Your task to perform on an android device: Clear the cart on bestbuy.com. Image 0: 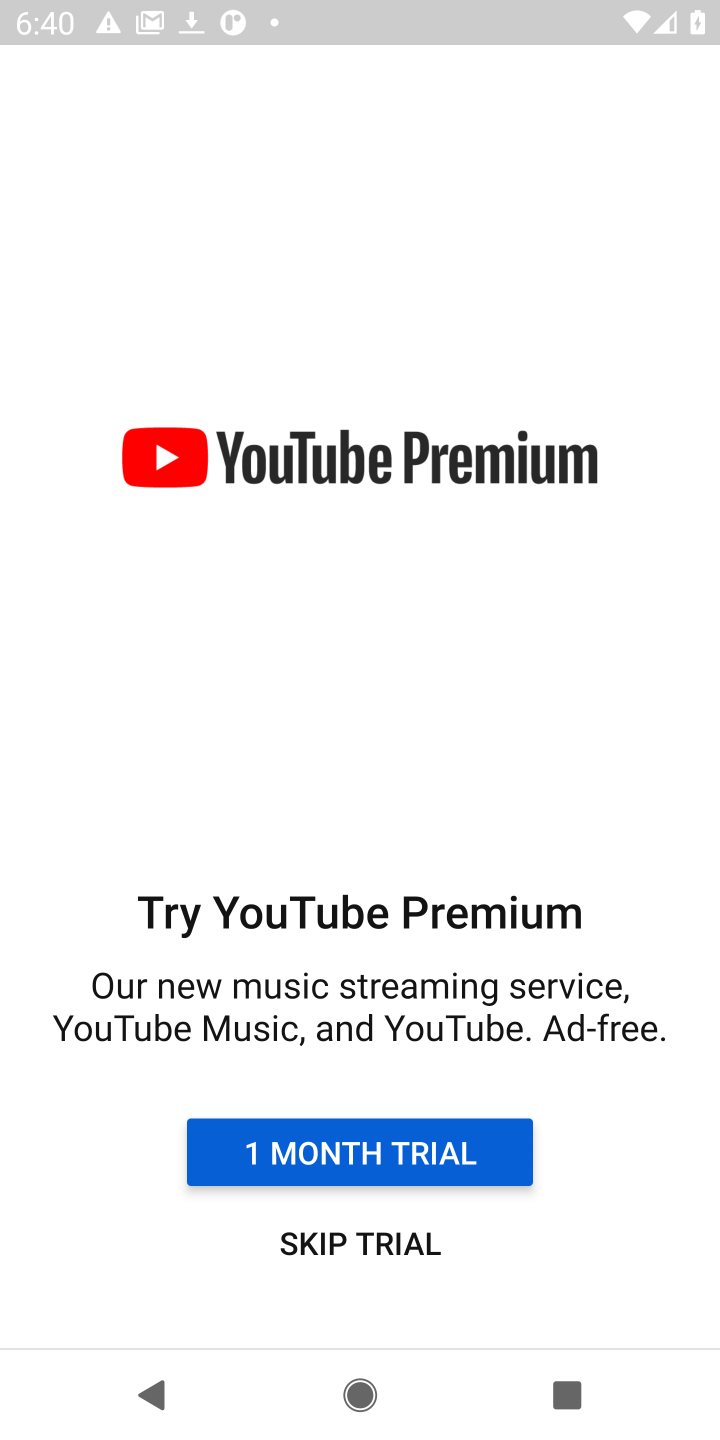
Step 0: press home button
Your task to perform on an android device: Clear the cart on bestbuy.com. Image 1: 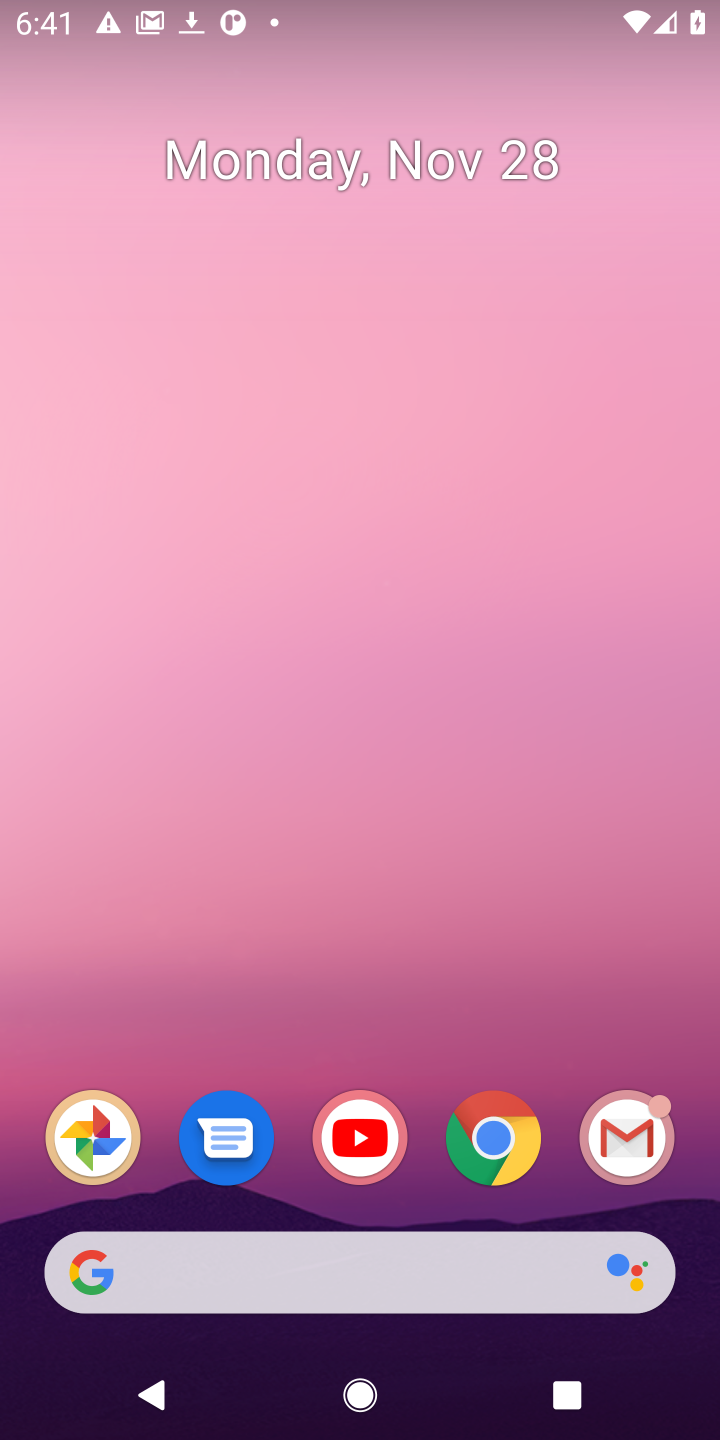
Step 1: click (487, 1160)
Your task to perform on an android device: Clear the cart on bestbuy.com. Image 2: 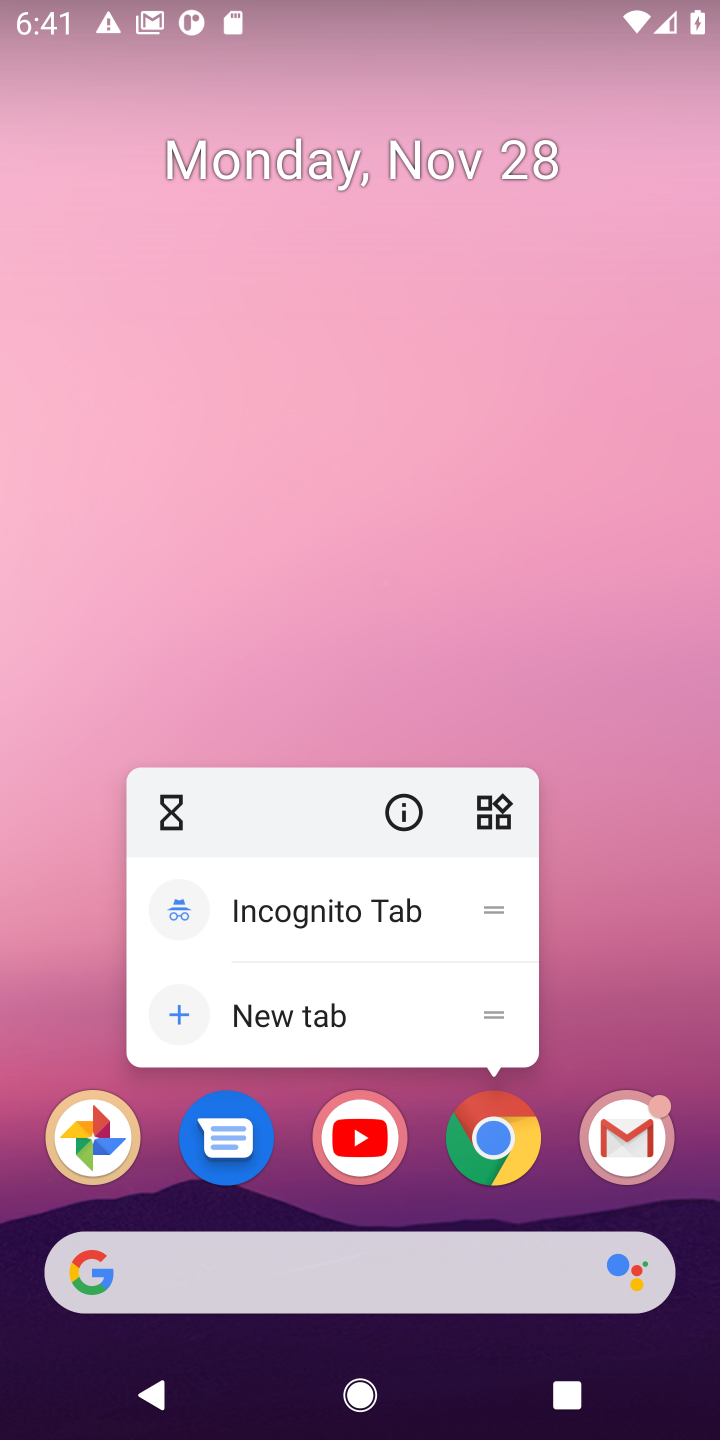
Step 2: click (487, 1160)
Your task to perform on an android device: Clear the cart on bestbuy.com. Image 3: 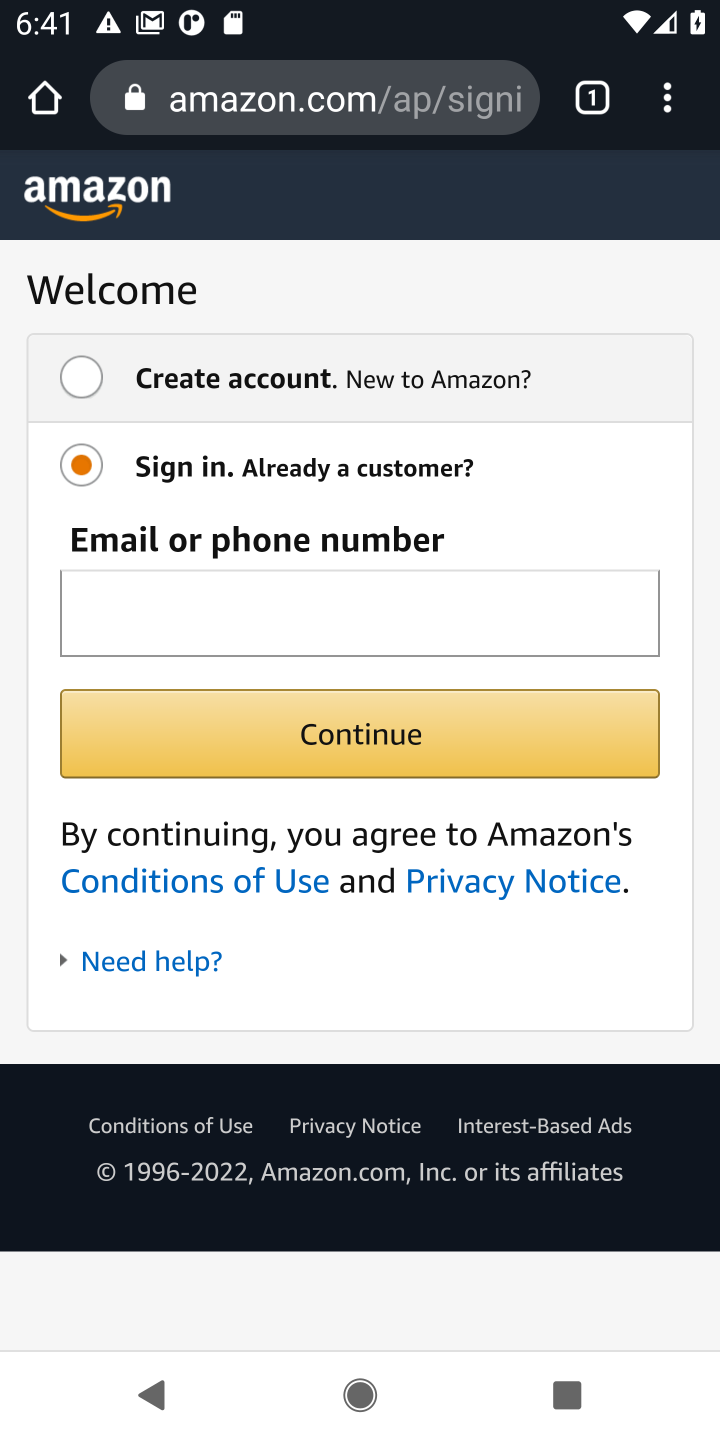
Step 3: click (323, 117)
Your task to perform on an android device: Clear the cart on bestbuy.com. Image 4: 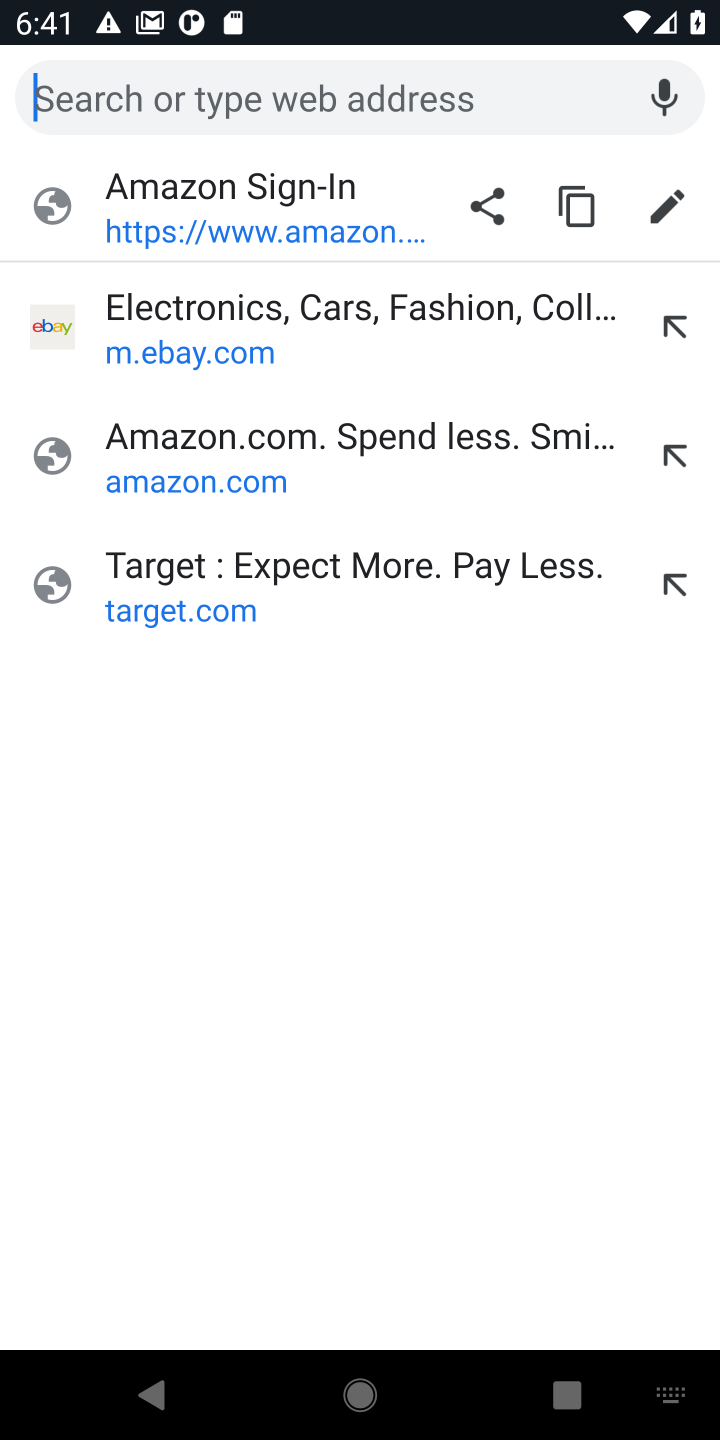
Step 4: type "bestbuy.com"
Your task to perform on an android device: Clear the cart on bestbuy.com. Image 5: 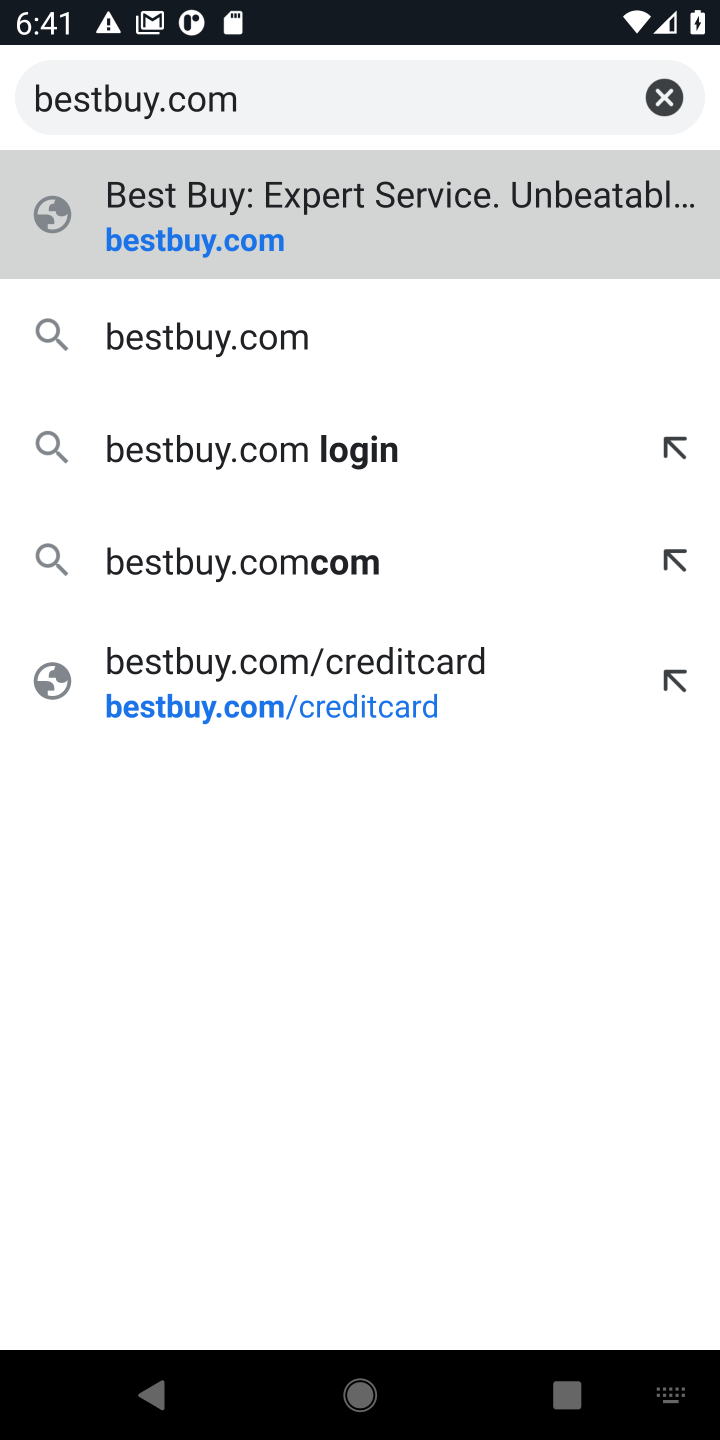
Step 5: click (204, 236)
Your task to perform on an android device: Clear the cart on bestbuy.com. Image 6: 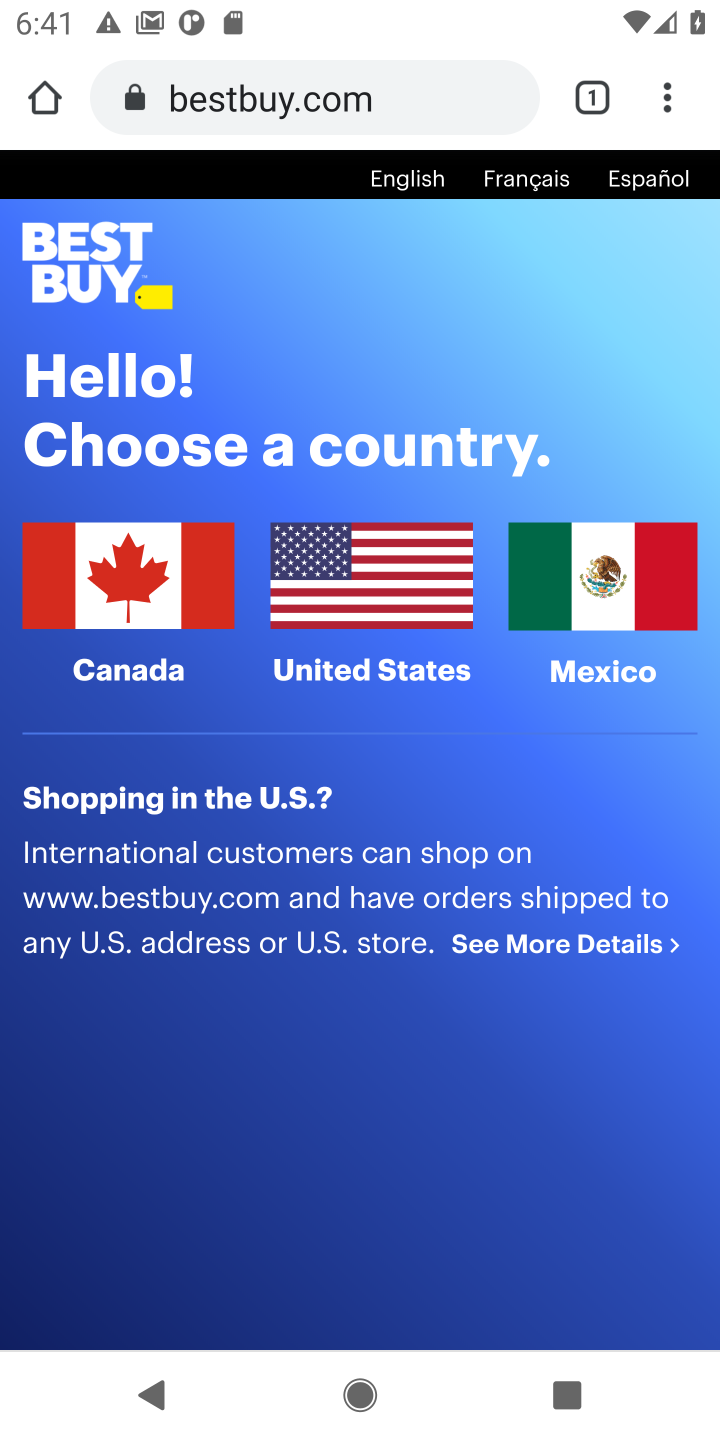
Step 6: click (373, 576)
Your task to perform on an android device: Clear the cart on bestbuy.com. Image 7: 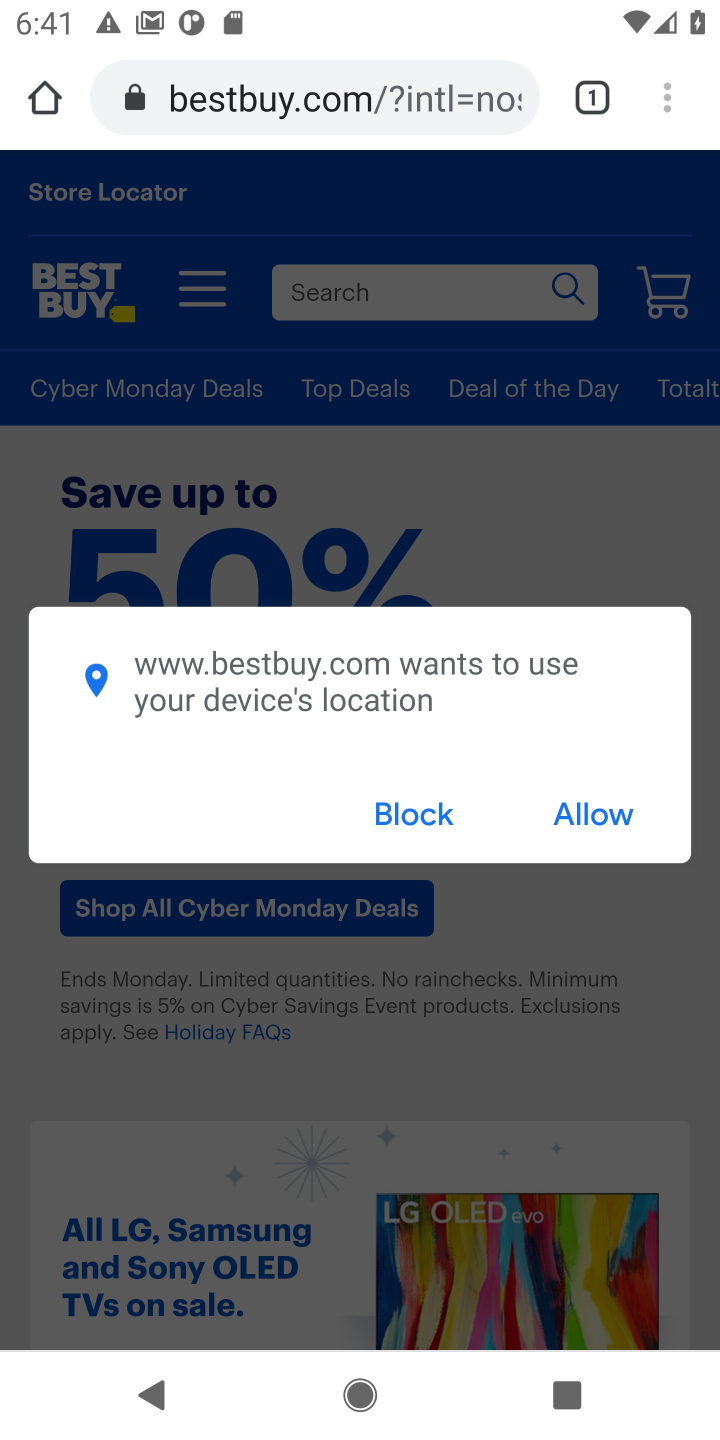
Step 7: click (679, 308)
Your task to perform on an android device: Clear the cart on bestbuy.com. Image 8: 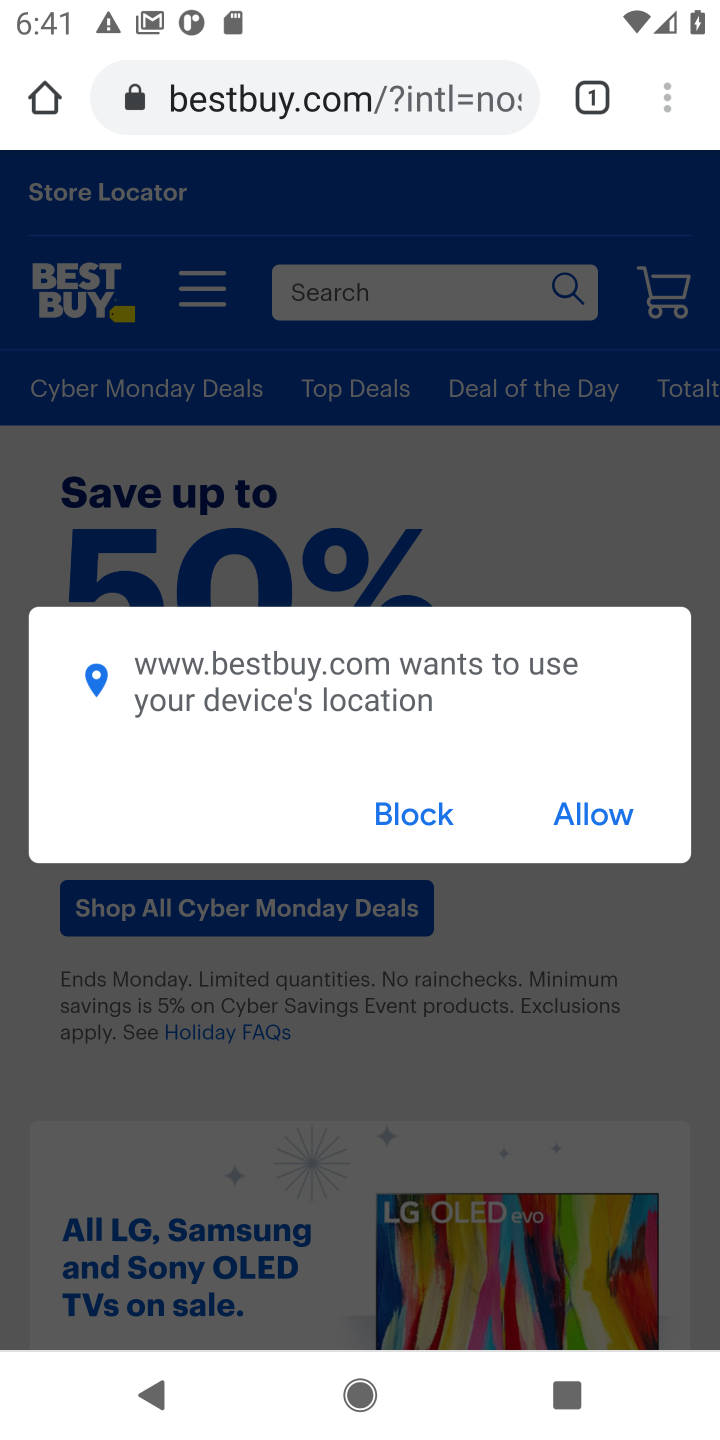
Step 8: click (419, 803)
Your task to perform on an android device: Clear the cart on bestbuy.com. Image 9: 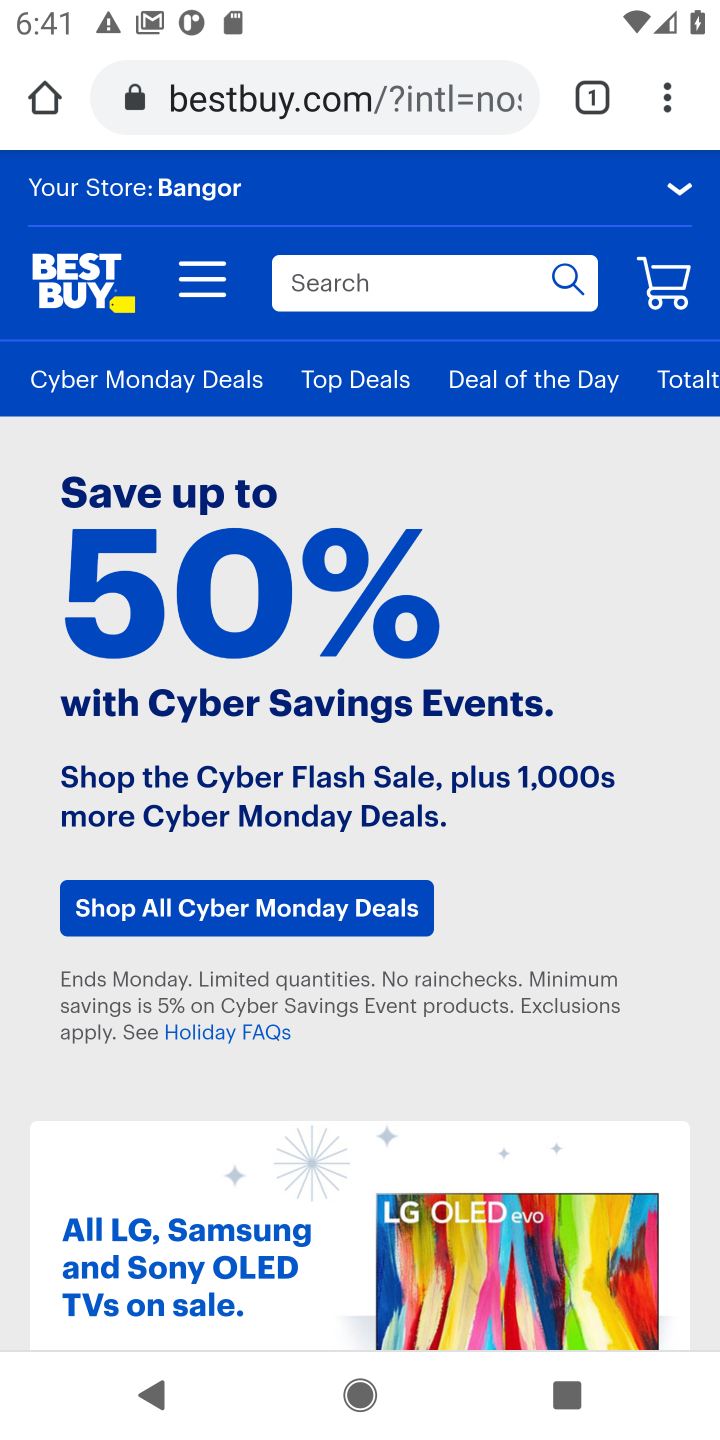
Step 9: click (663, 274)
Your task to perform on an android device: Clear the cart on bestbuy.com. Image 10: 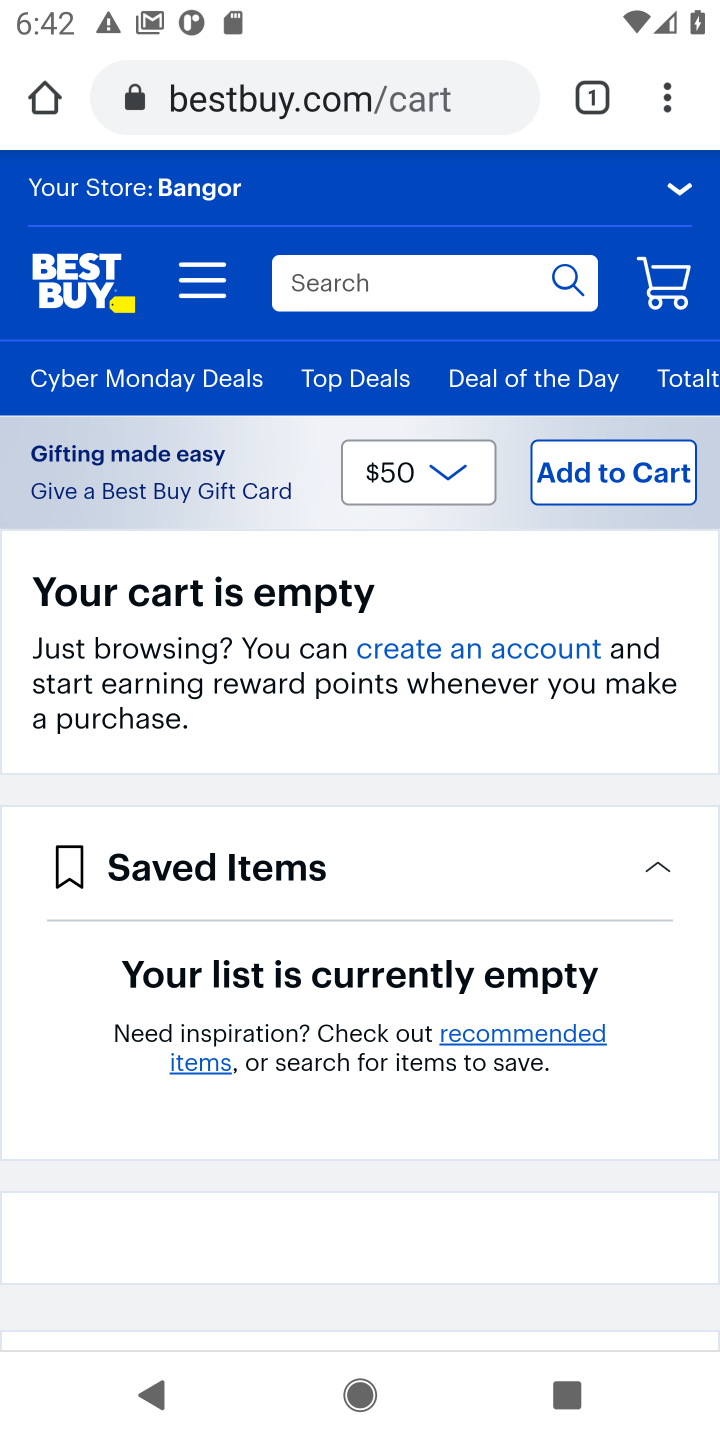
Step 10: task complete